Your task to perform on an android device: delete browsing data in the chrome app Image 0: 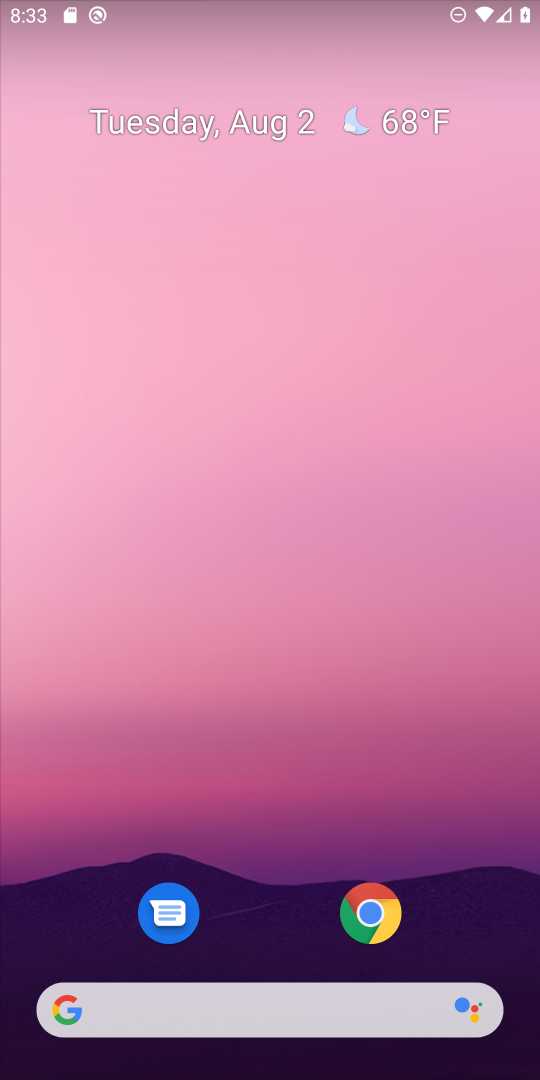
Step 0: click (379, 904)
Your task to perform on an android device: delete browsing data in the chrome app Image 1: 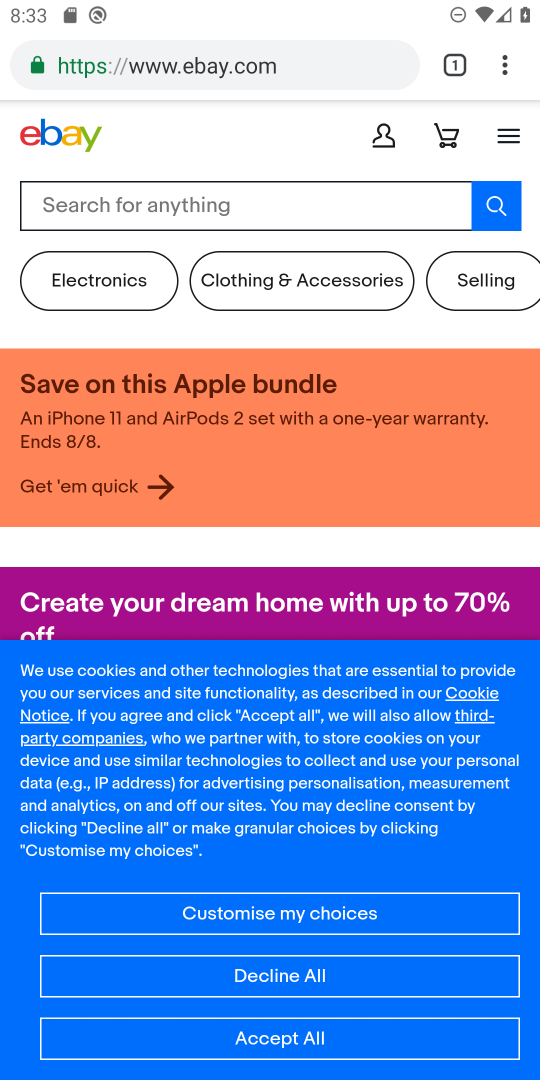
Step 1: click (507, 59)
Your task to perform on an android device: delete browsing data in the chrome app Image 2: 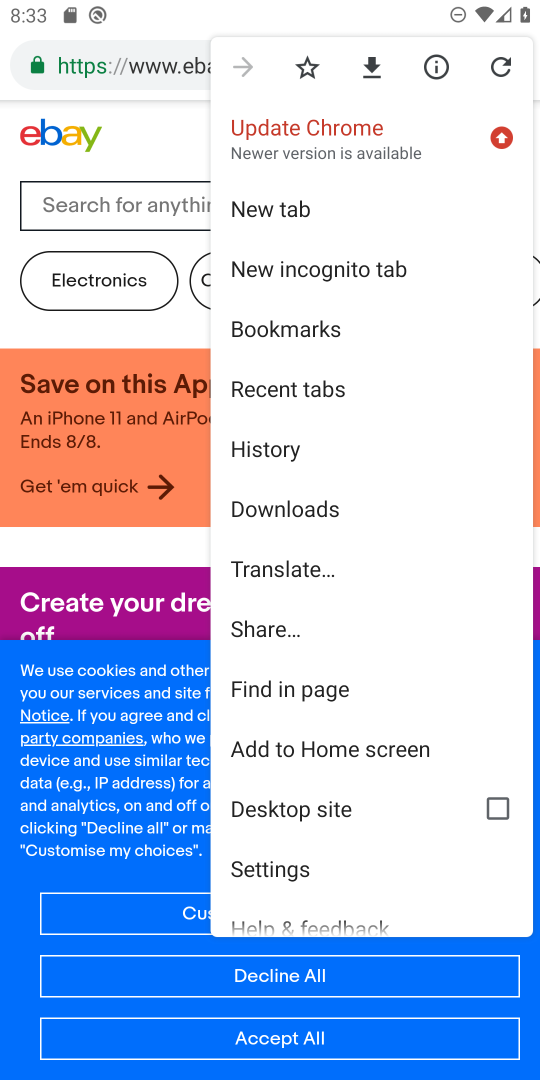
Step 2: click (299, 447)
Your task to perform on an android device: delete browsing data in the chrome app Image 3: 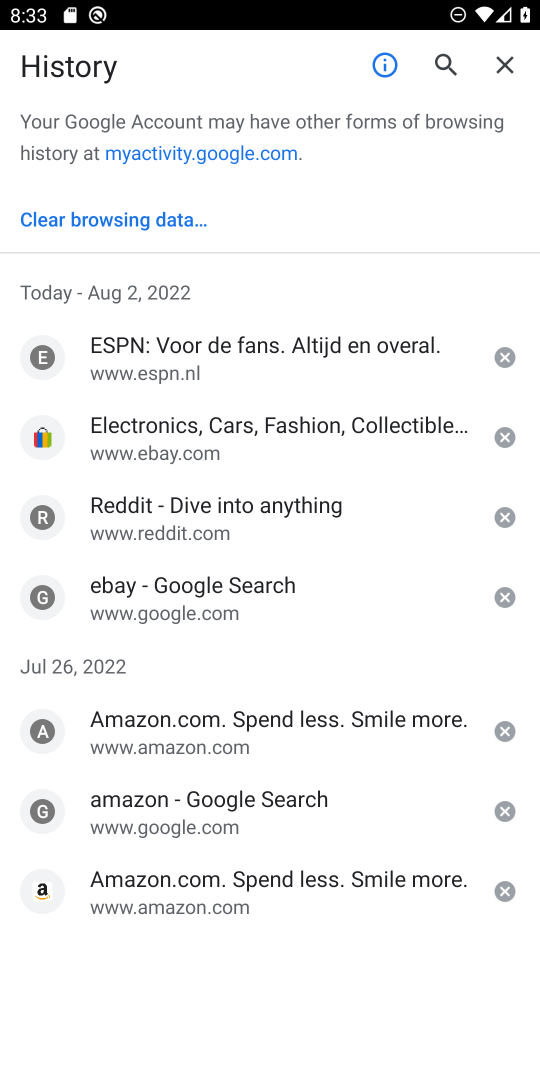
Step 3: click (152, 220)
Your task to perform on an android device: delete browsing data in the chrome app Image 4: 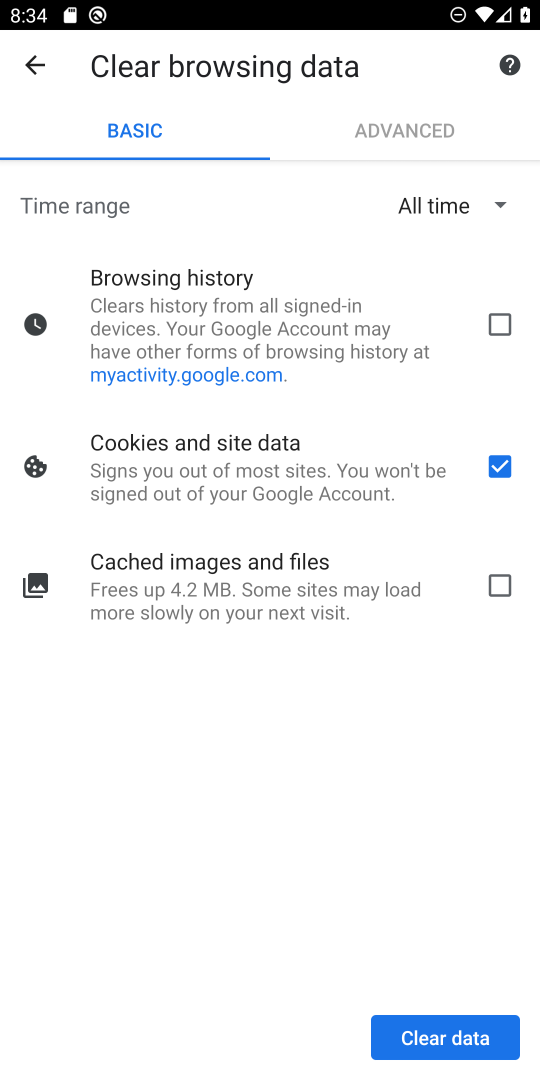
Step 4: click (493, 328)
Your task to perform on an android device: delete browsing data in the chrome app Image 5: 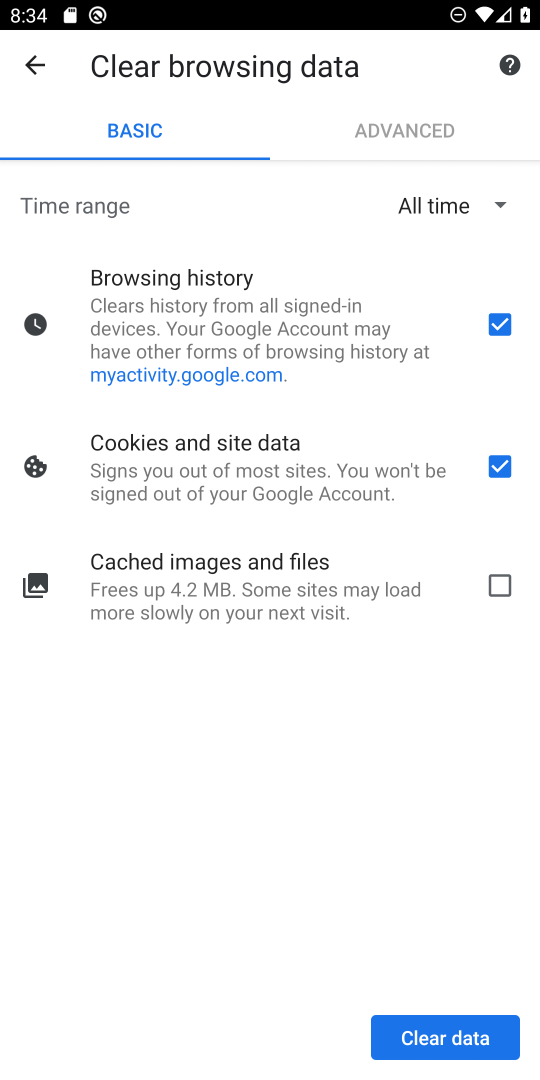
Step 5: click (500, 463)
Your task to perform on an android device: delete browsing data in the chrome app Image 6: 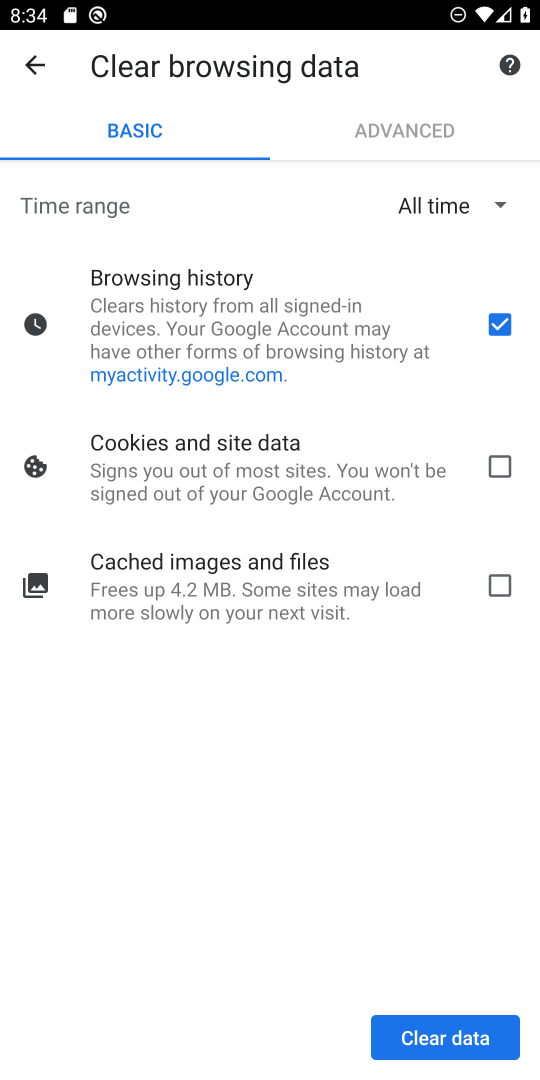
Step 6: click (428, 1044)
Your task to perform on an android device: delete browsing data in the chrome app Image 7: 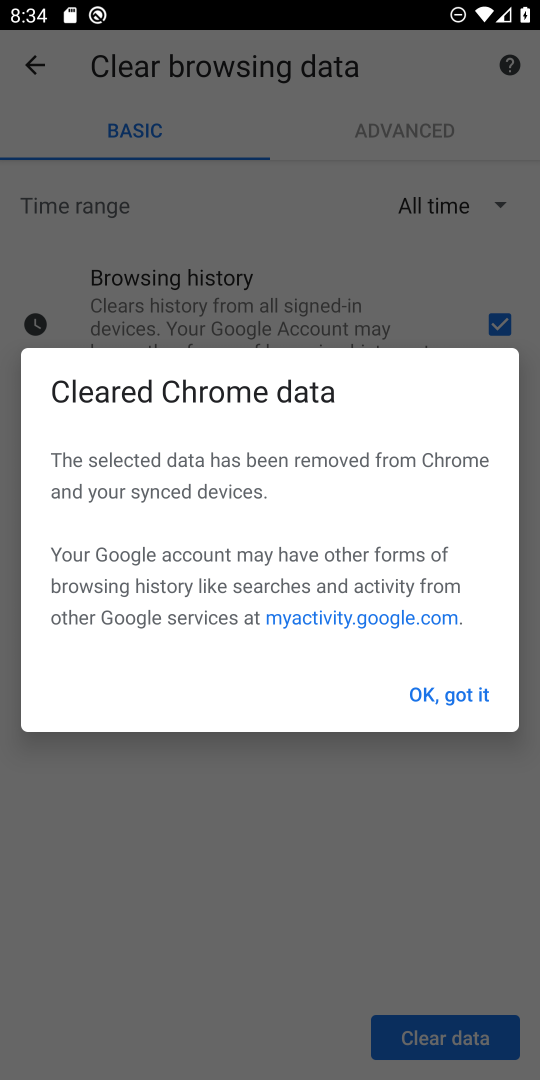
Step 7: click (432, 706)
Your task to perform on an android device: delete browsing data in the chrome app Image 8: 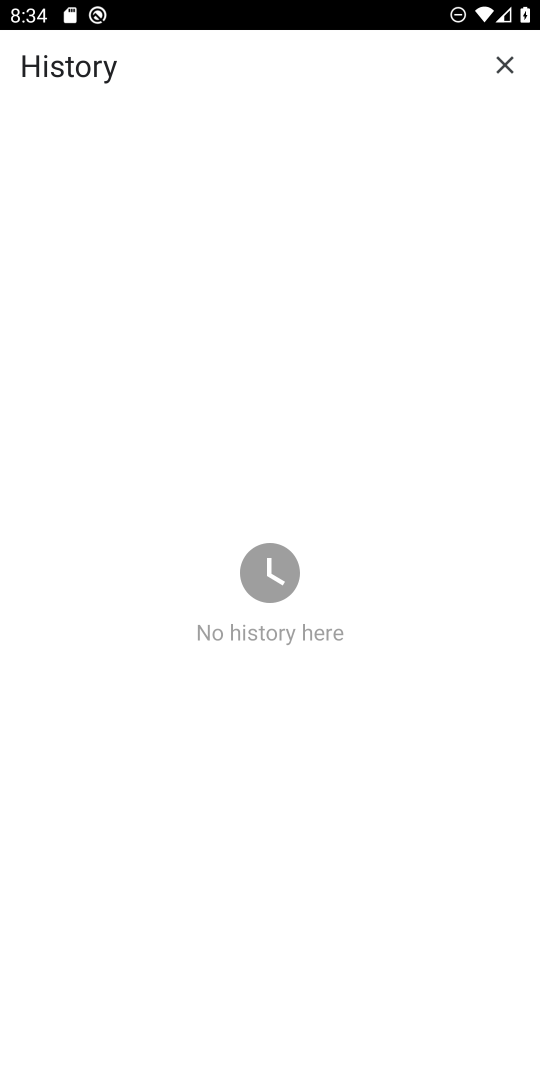
Step 8: task complete